Your task to perform on an android device: Go to CNN.com Image 0: 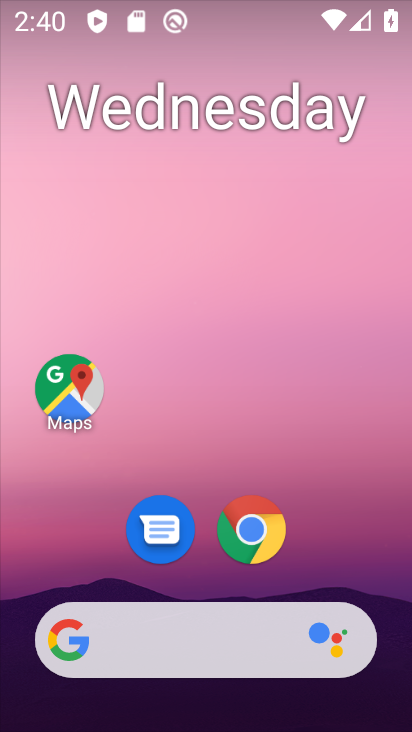
Step 0: click (257, 523)
Your task to perform on an android device: Go to CNN.com Image 1: 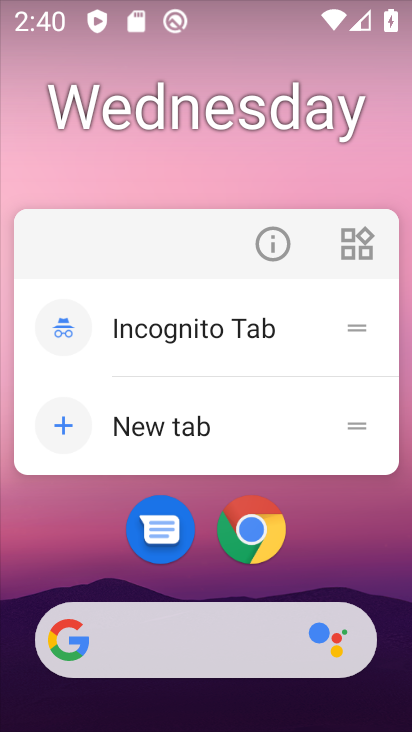
Step 1: click (257, 534)
Your task to perform on an android device: Go to CNN.com Image 2: 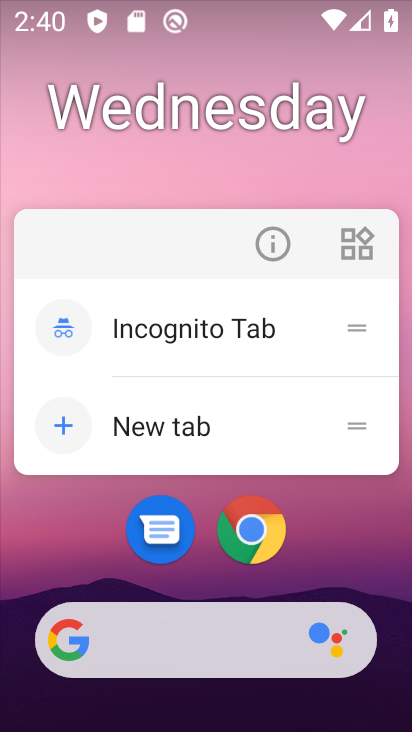
Step 2: click (257, 535)
Your task to perform on an android device: Go to CNN.com Image 3: 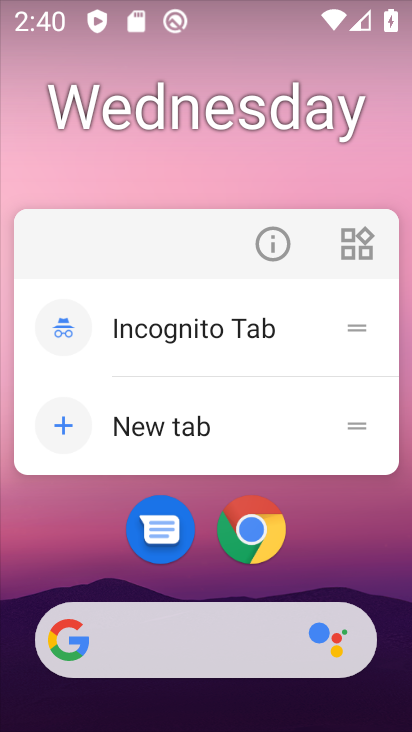
Step 3: click (253, 570)
Your task to perform on an android device: Go to CNN.com Image 4: 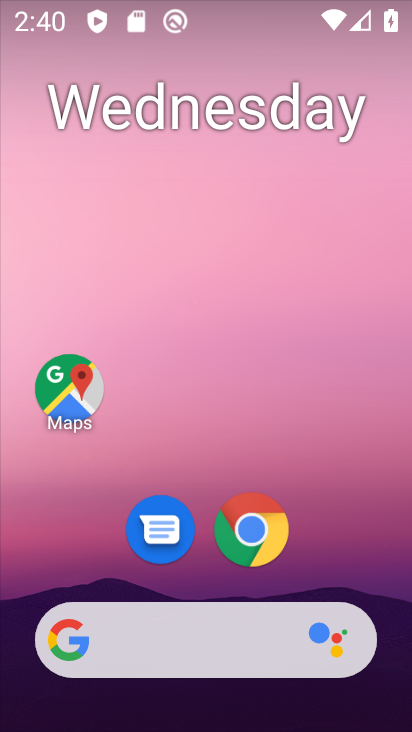
Step 4: click (268, 532)
Your task to perform on an android device: Go to CNN.com Image 5: 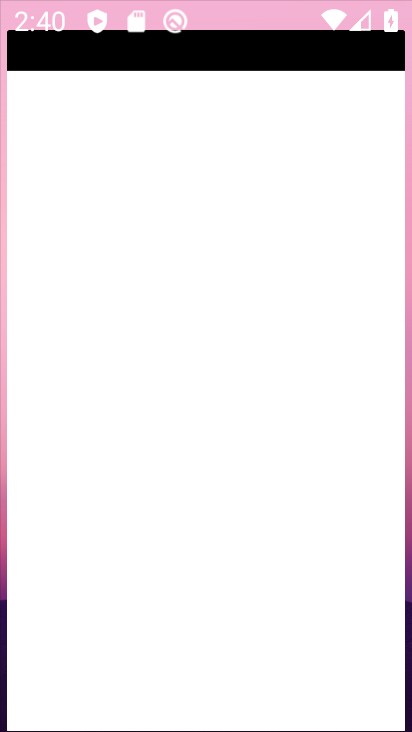
Step 5: click (271, 536)
Your task to perform on an android device: Go to CNN.com Image 6: 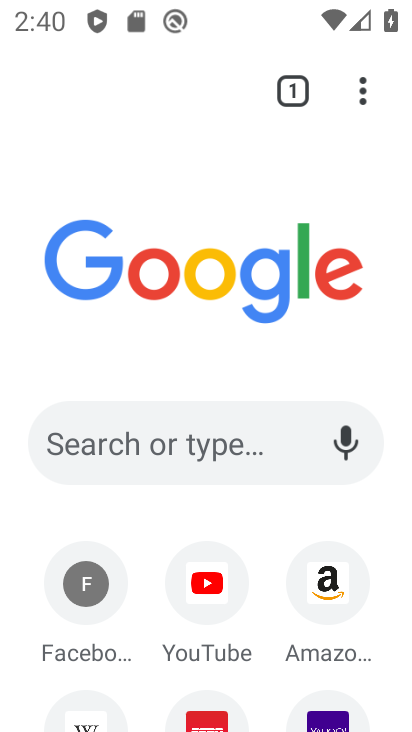
Step 6: click (225, 461)
Your task to perform on an android device: Go to CNN.com Image 7: 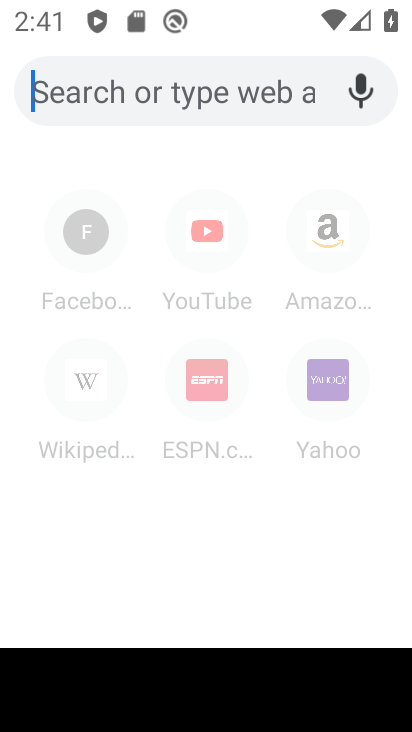
Step 7: type "CNN.com"
Your task to perform on an android device: Go to CNN.com Image 8: 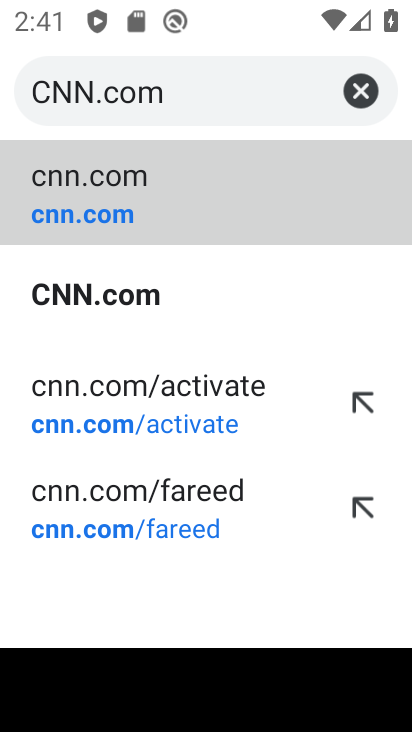
Step 8: click (129, 295)
Your task to perform on an android device: Go to CNN.com Image 9: 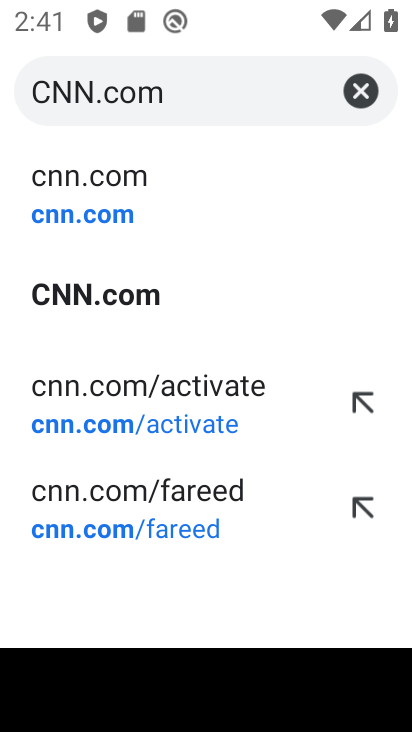
Step 9: click (156, 199)
Your task to perform on an android device: Go to CNN.com Image 10: 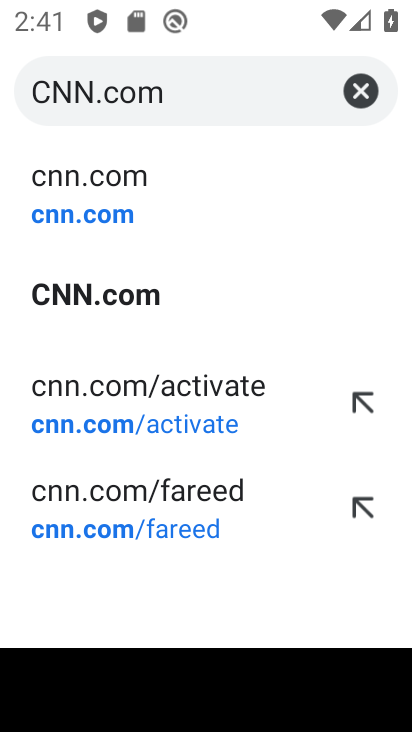
Step 10: click (147, 214)
Your task to perform on an android device: Go to CNN.com Image 11: 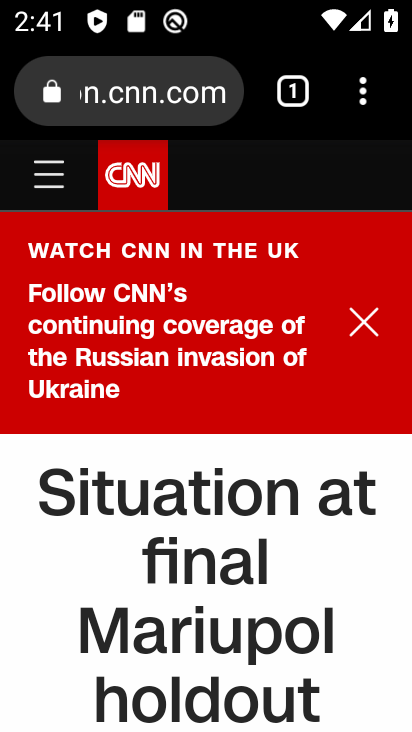
Step 11: task complete